Your task to perform on an android device: Open CNN.com Image 0: 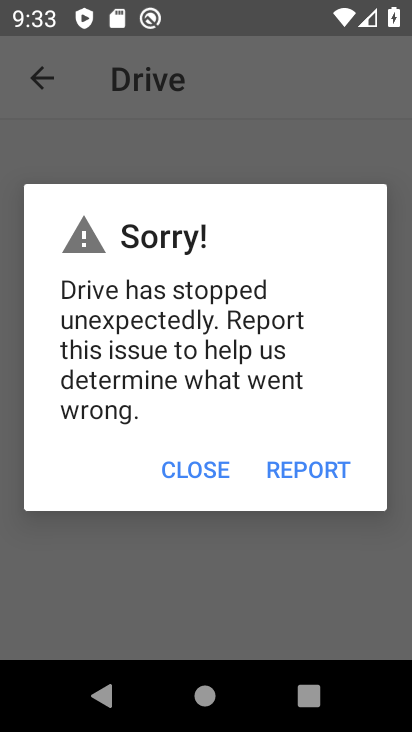
Step 0: press home button
Your task to perform on an android device: Open CNN.com Image 1: 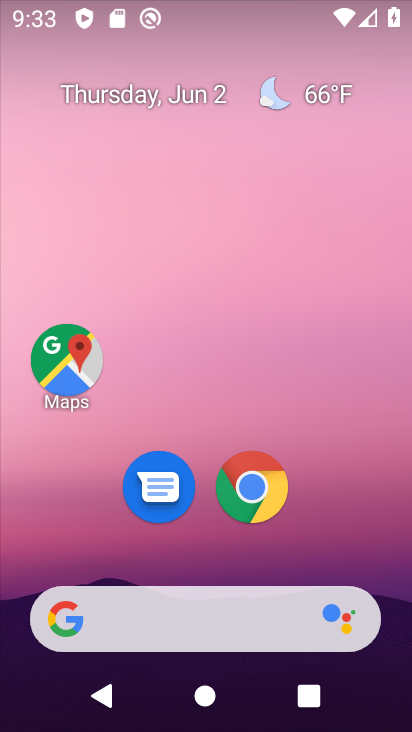
Step 1: click (252, 498)
Your task to perform on an android device: Open CNN.com Image 2: 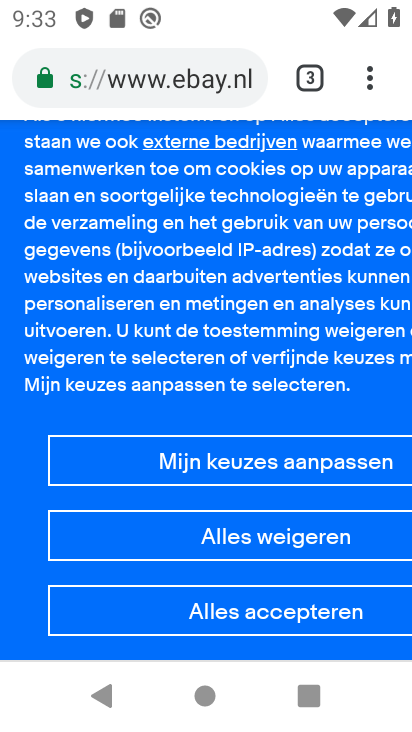
Step 2: click (370, 89)
Your task to perform on an android device: Open CNN.com Image 3: 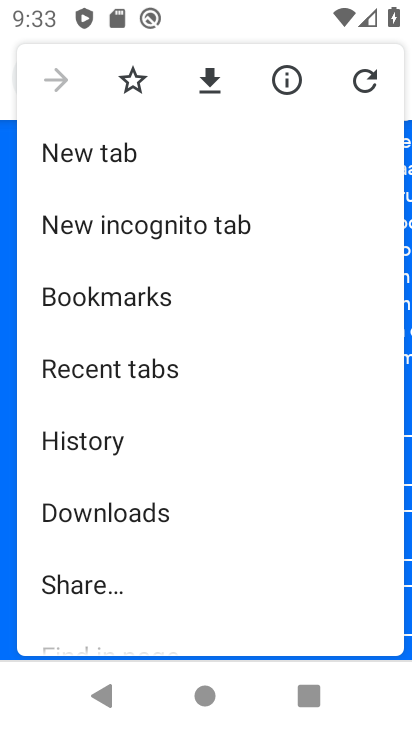
Step 3: click (92, 153)
Your task to perform on an android device: Open CNN.com Image 4: 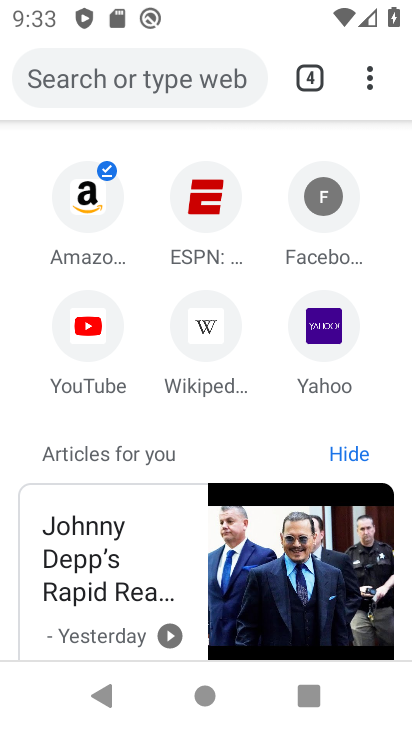
Step 4: click (167, 79)
Your task to perform on an android device: Open CNN.com Image 5: 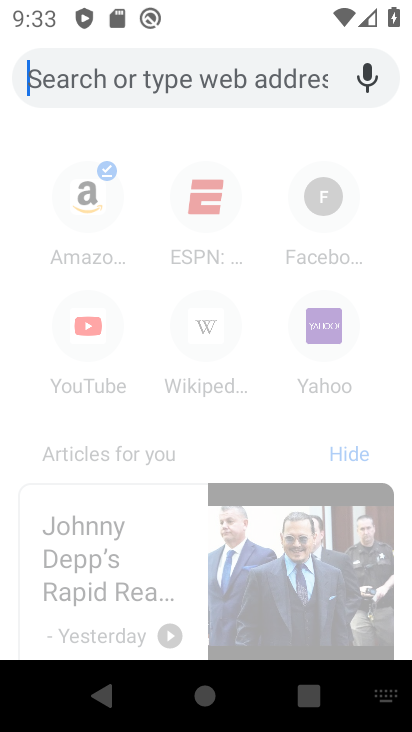
Step 5: type "CNN.com"
Your task to perform on an android device: Open CNN.com Image 6: 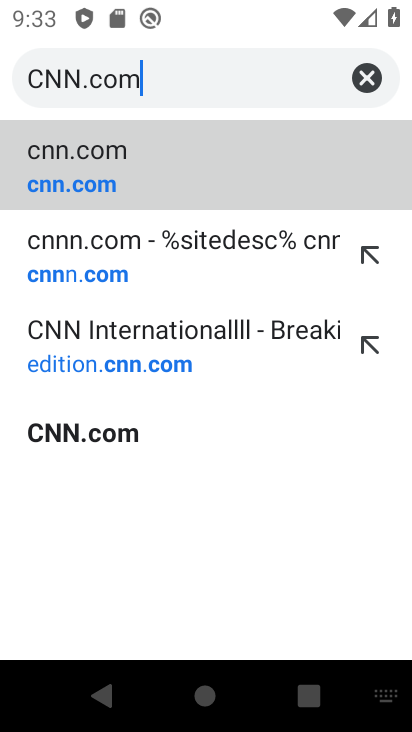
Step 6: click (85, 155)
Your task to perform on an android device: Open CNN.com Image 7: 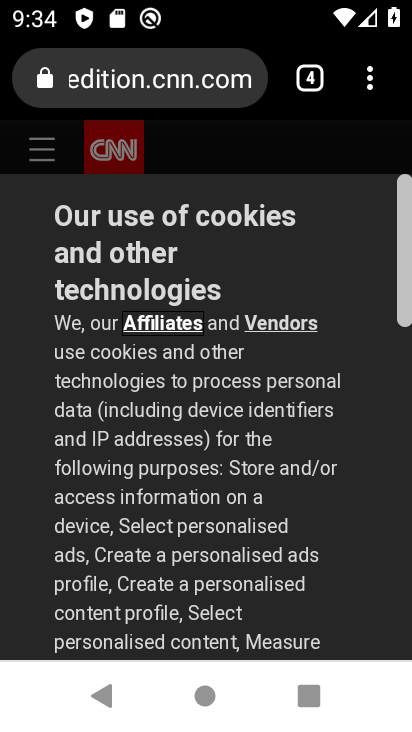
Step 7: task complete